Your task to perform on an android device: turn on sleep mode Image 0: 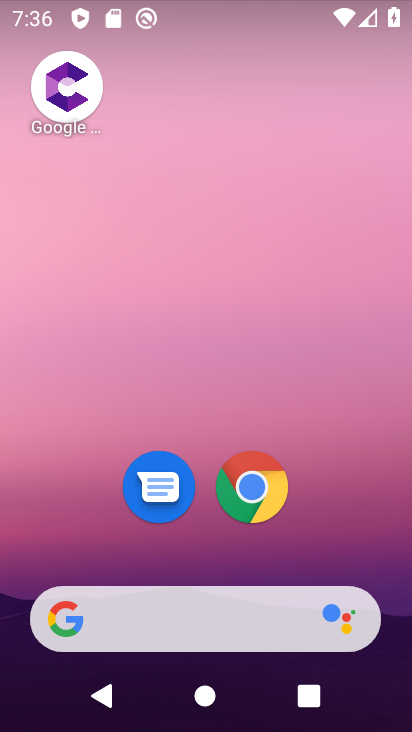
Step 0: drag from (364, 533) to (316, 157)
Your task to perform on an android device: turn on sleep mode Image 1: 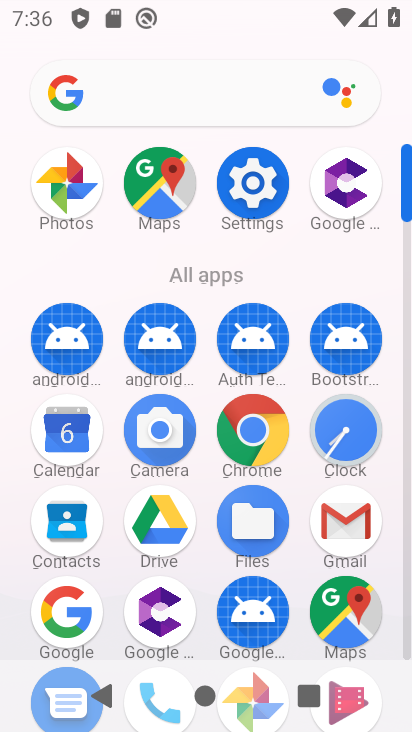
Step 1: click (260, 216)
Your task to perform on an android device: turn on sleep mode Image 2: 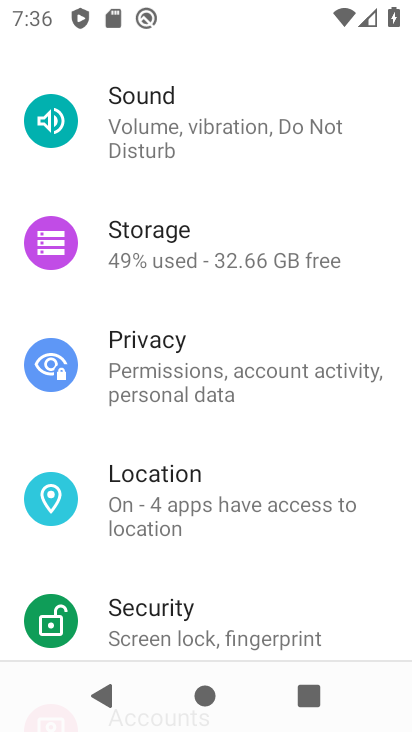
Step 2: drag from (243, 138) to (264, 456)
Your task to perform on an android device: turn on sleep mode Image 3: 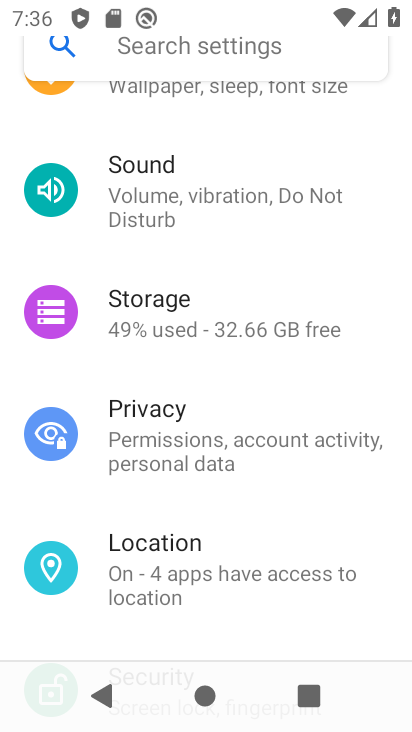
Step 3: click (222, 50)
Your task to perform on an android device: turn on sleep mode Image 4: 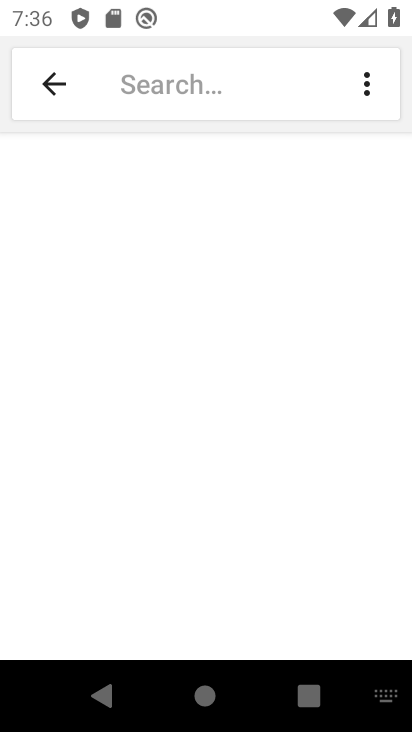
Step 4: type "sleep mode"
Your task to perform on an android device: turn on sleep mode Image 5: 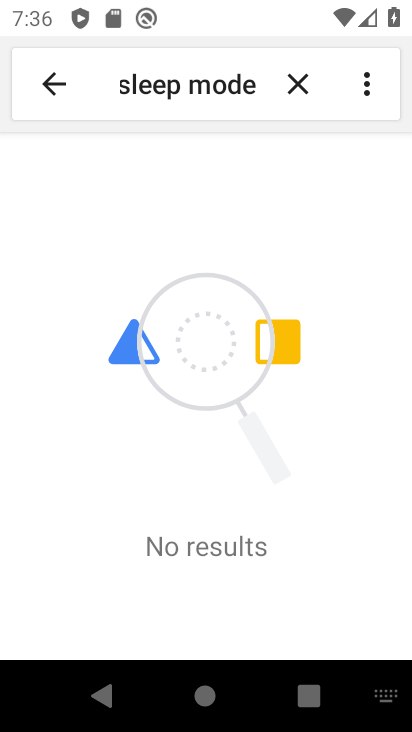
Step 5: task complete